Your task to perform on an android device: Is it going to rain tomorrow? Image 0: 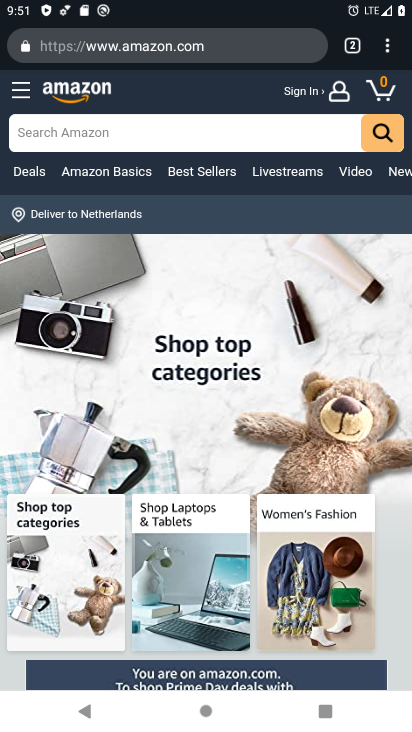
Step 0: press home button
Your task to perform on an android device: Is it going to rain tomorrow? Image 1: 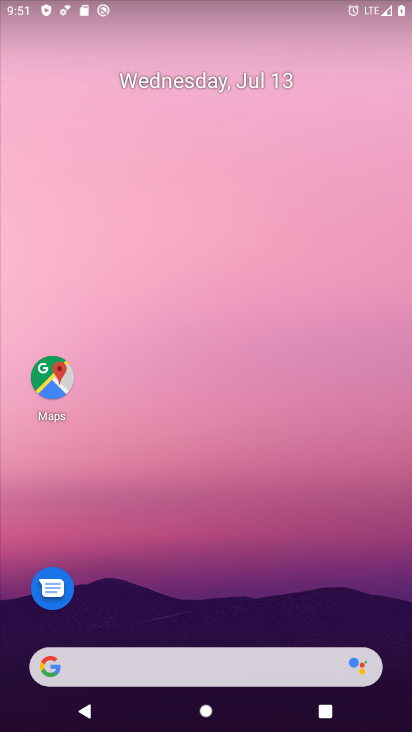
Step 1: click (250, 675)
Your task to perform on an android device: Is it going to rain tomorrow? Image 2: 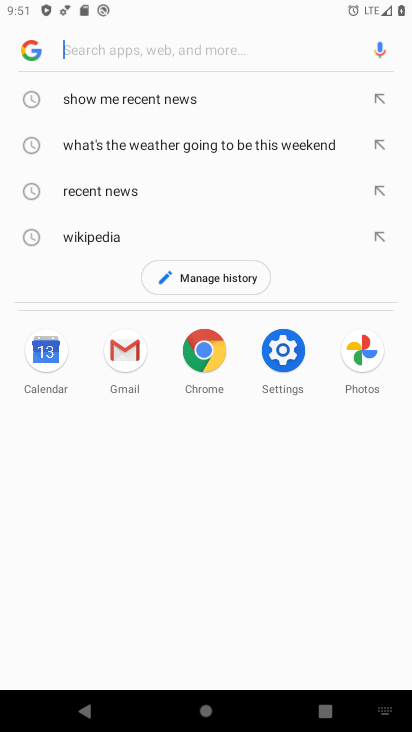
Step 2: type "Is it going to rain tomorrow?"
Your task to perform on an android device: Is it going to rain tomorrow? Image 3: 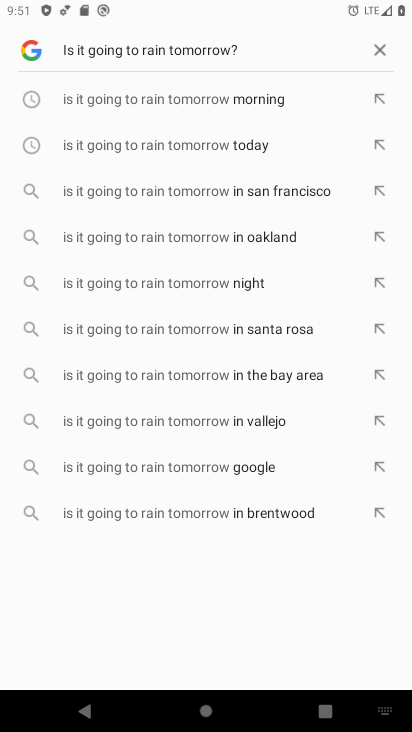
Step 3: press enter
Your task to perform on an android device: Is it going to rain tomorrow? Image 4: 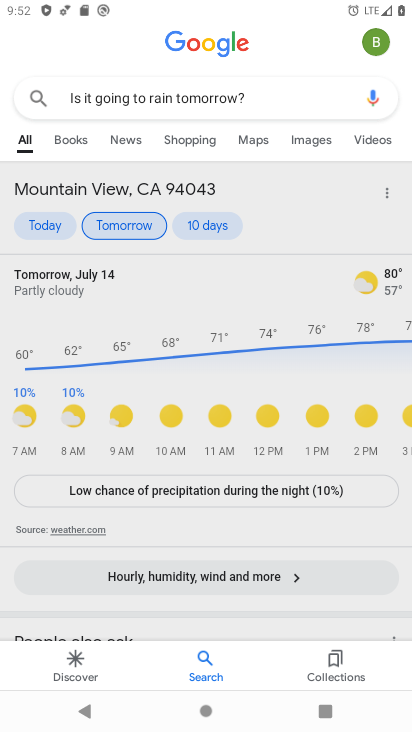
Step 4: task complete